Your task to perform on an android device: toggle javascript in the chrome app Image 0: 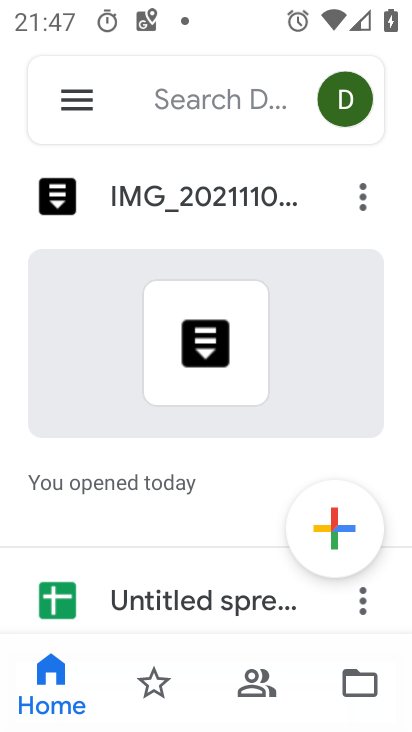
Step 0: press home button
Your task to perform on an android device: toggle javascript in the chrome app Image 1: 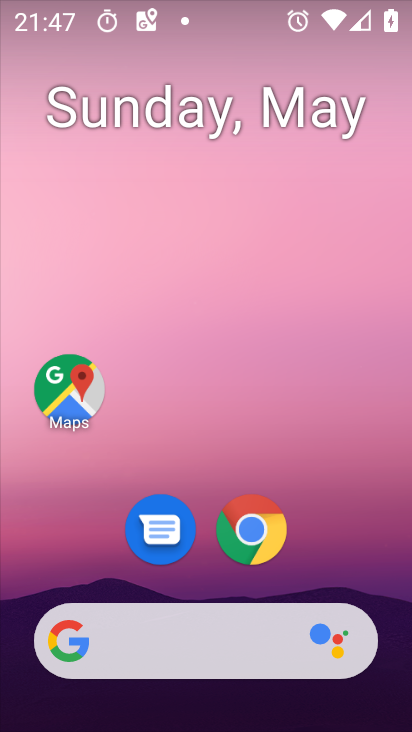
Step 1: click (258, 536)
Your task to perform on an android device: toggle javascript in the chrome app Image 2: 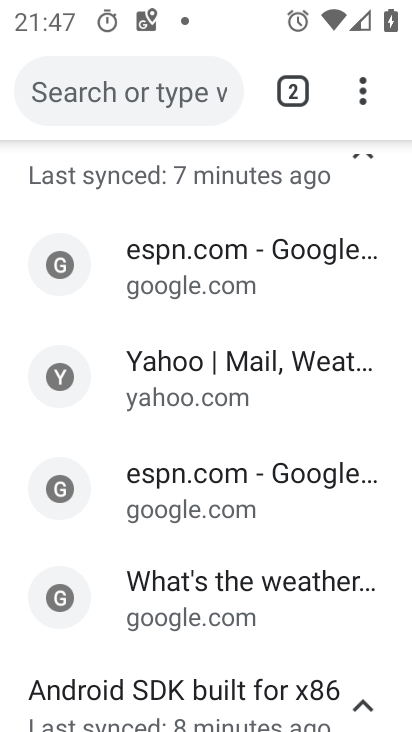
Step 2: click (364, 96)
Your task to perform on an android device: toggle javascript in the chrome app Image 3: 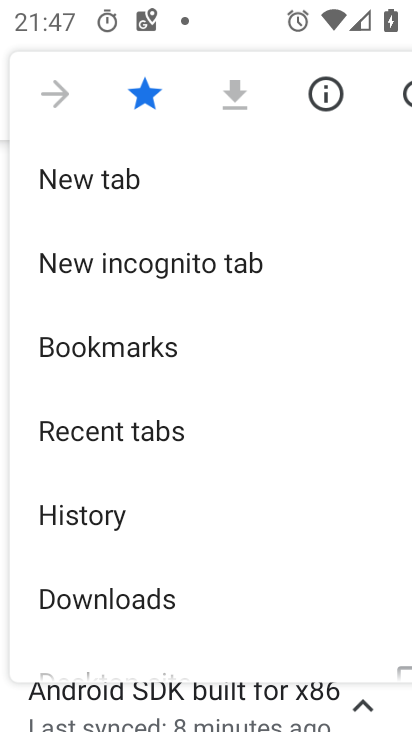
Step 3: drag from (239, 562) to (248, 40)
Your task to perform on an android device: toggle javascript in the chrome app Image 4: 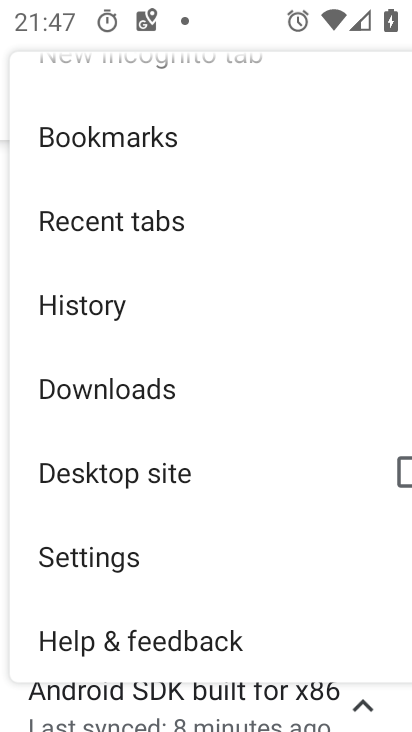
Step 4: click (116, 559)
Your task to perform on an android device: toggle javascript in the chrome app Image 5: 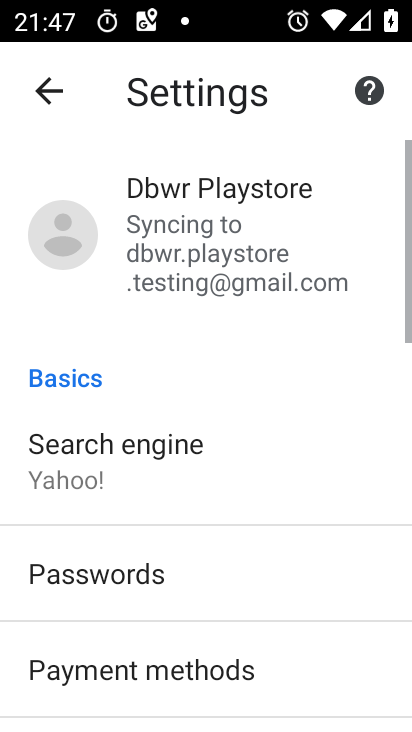
Step 5: drag from (228, 580) to (230, 7)
Your task to perform on an android device: toggle javascript in the chrome app Image 6: 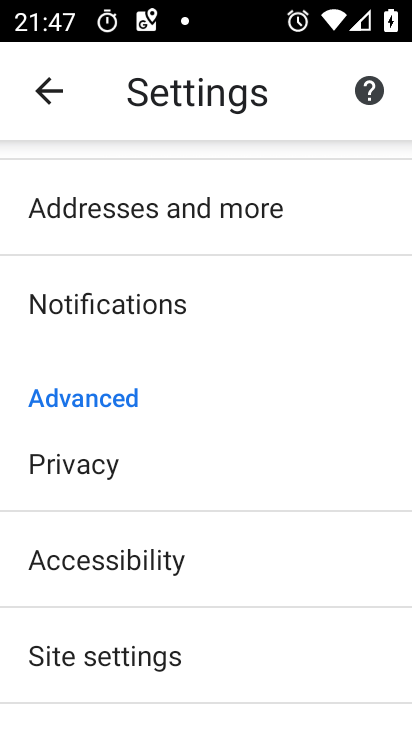
Step 6: click (144, 651)
Your task to perform on an android device: toggle javascript in the chrome app Image 7: 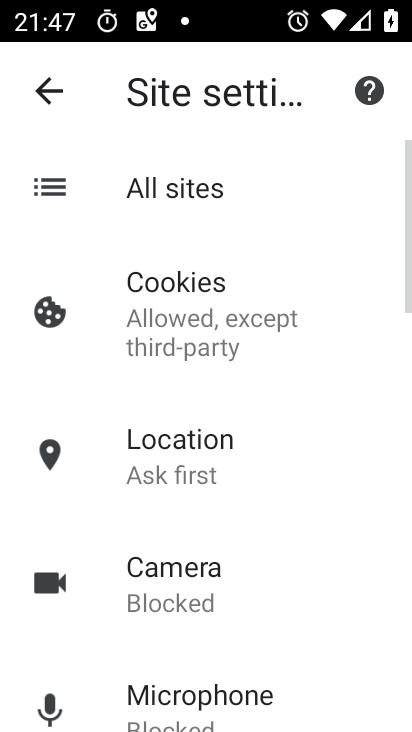
Step 7: drag from (276, 633) to (263, 144)
Your task to perform on an android device: toggle javascript in the chrome app Image 8: 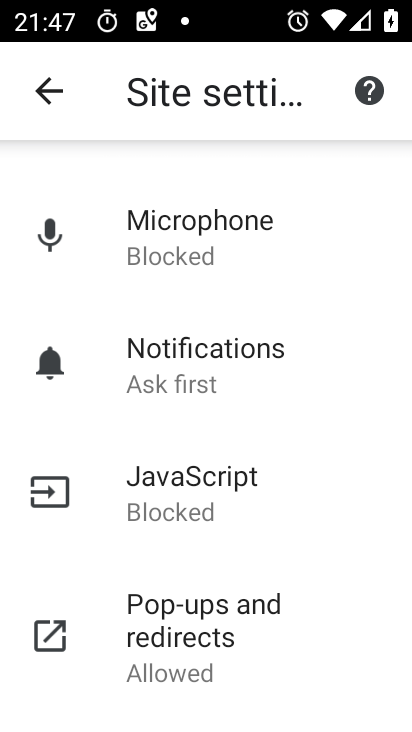
Step 8: click (174, 493)
Your task to perform on an android device: toggle javascript in the chrome app Image 9: 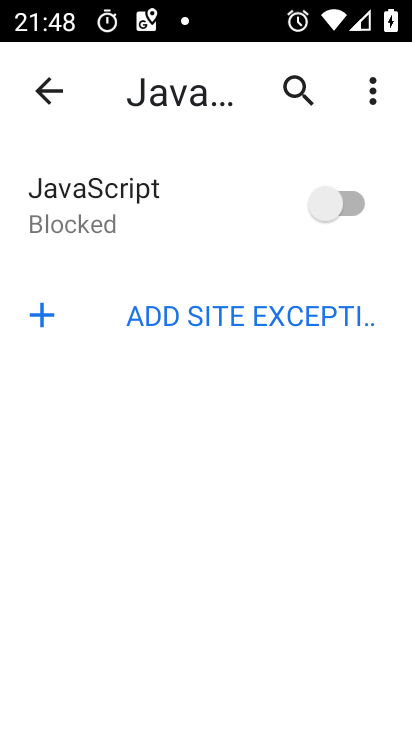
Step 9: click (327, 202)
Your task to perform on an android device: toggle javascript in the chrome app Image 10: 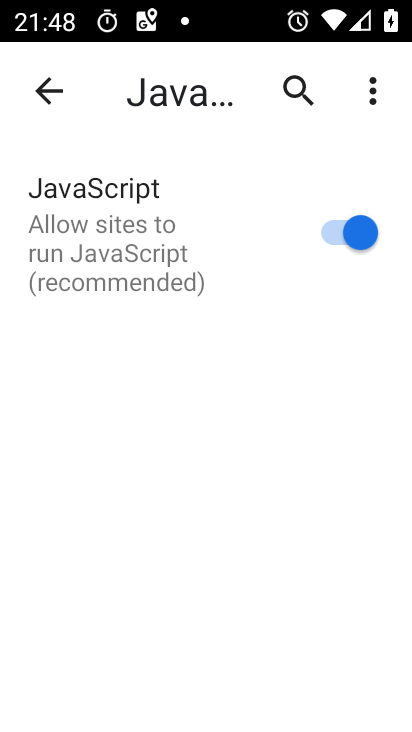
Step 10: task complete